Your task to perform on an android device: search for starred emails in the gmail app Image 0: 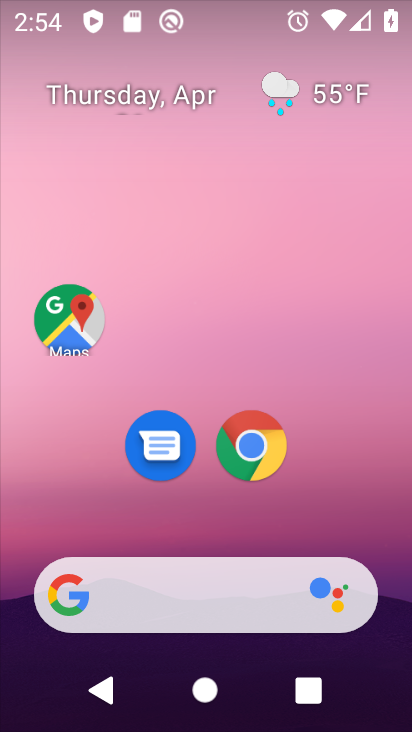
Step 0: drag from (209, 727) to (209, 56)
Your task to perform on an android device: search for starred emails in the gmail app Image 1: 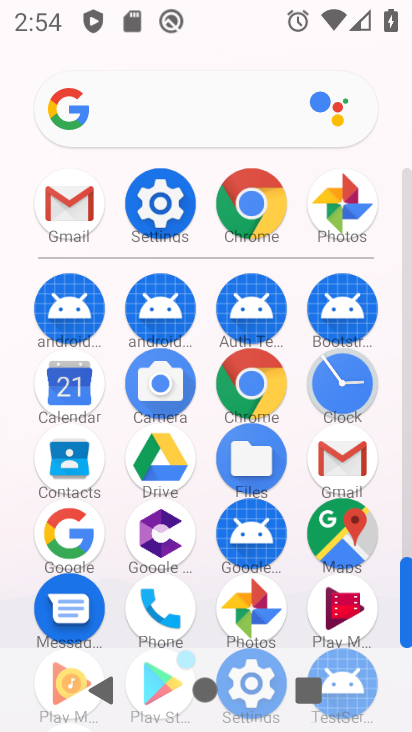
Step 1: click (67, 204)
Your task to perform on an android device: search for starred emails in the gmail app Image 2: 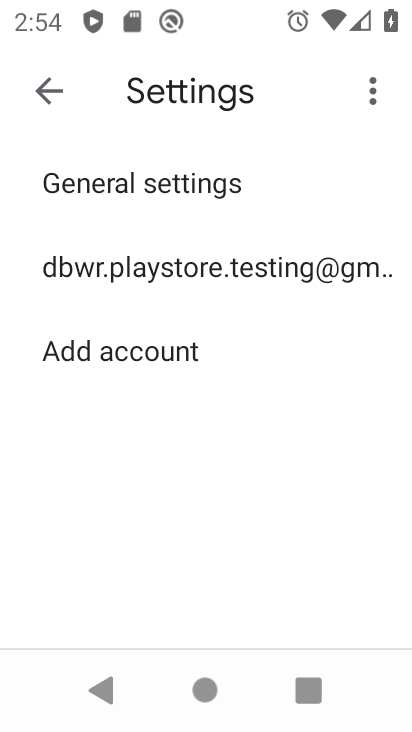
Step 2: click (46, 83)
Your task to perform on an android device: search for starred emails in the gmail app Image 3: 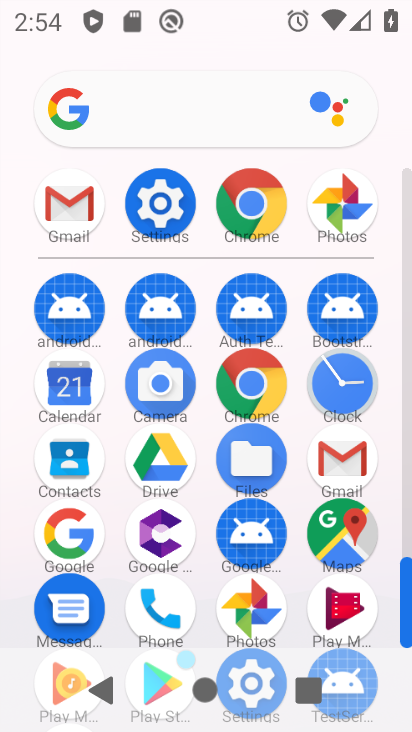
Step 3: click (69, 204)
Your task to perform on an android device: search for starred emails in the gmail app Image 4: 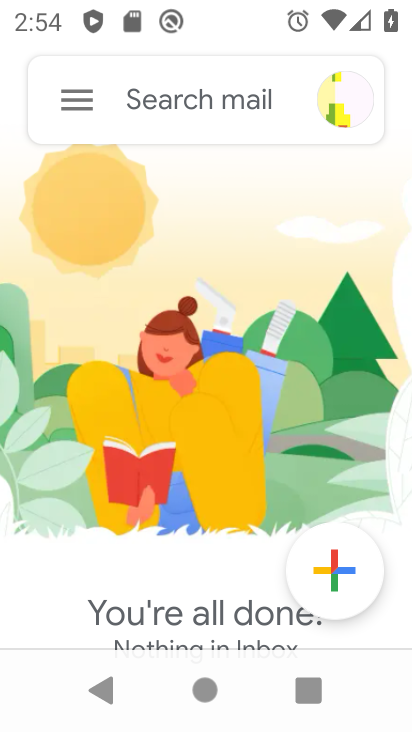
Step 4: click (76, 95)
Your task to perform on an android device: search for starred emails in the gmail app Image 5: 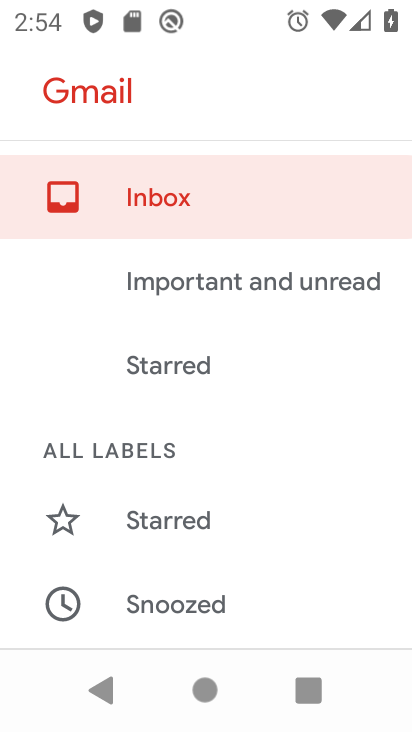
Step 5: click (179, 364)
Your task to perform on an android device: search for starred emails in the gmail app Image 6: 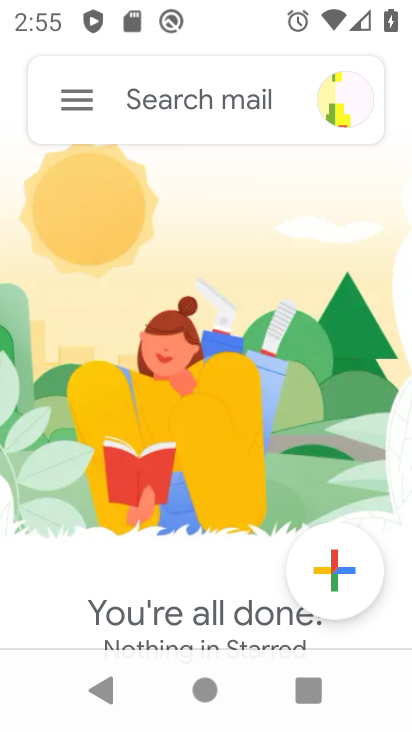
Step 6: task complete